Your task to perform on an android device: install app "Truecaller" Image 0: 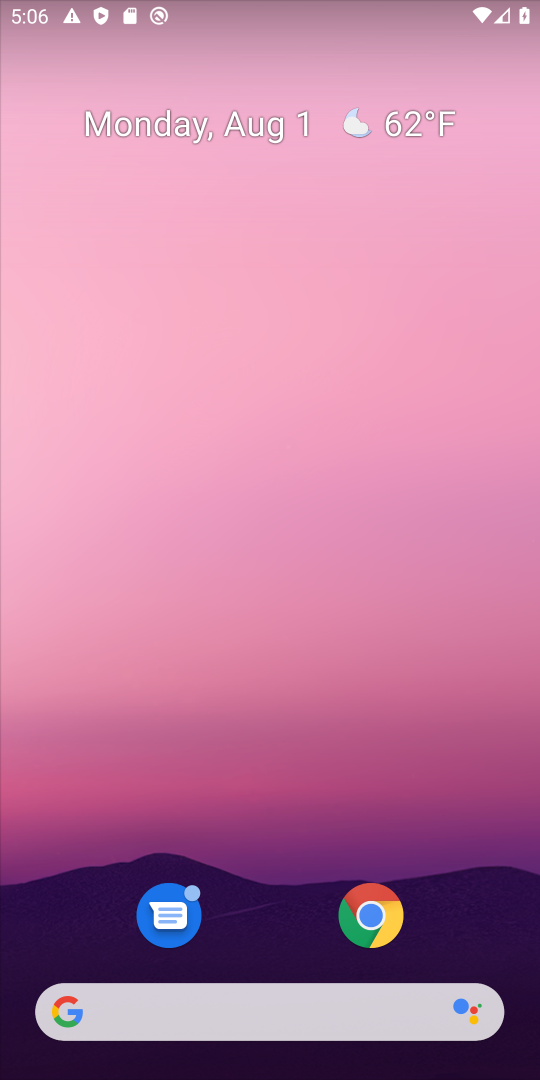
Step 0: drag from (261, 829) to (400, 32)
Your task to perform on an android device: install app "Truecaller" Image 1: 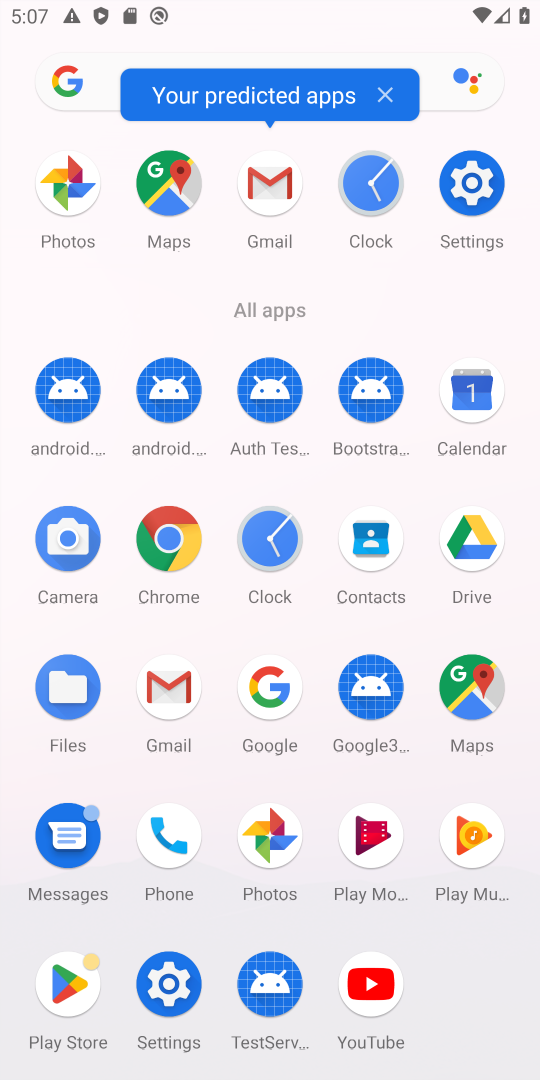
Step 1: click (59, 974)
Your task to perform on an android device: install app "Truecaller" Image 2: 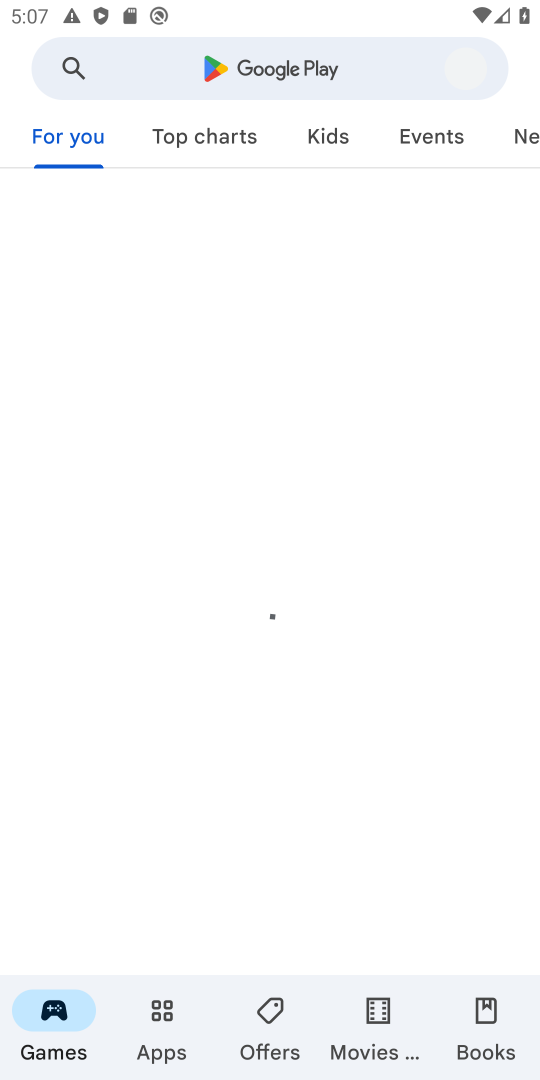
Step 2: click (309, 70)
Your task to perform on an android device: install app "Truecaller" Image 3: 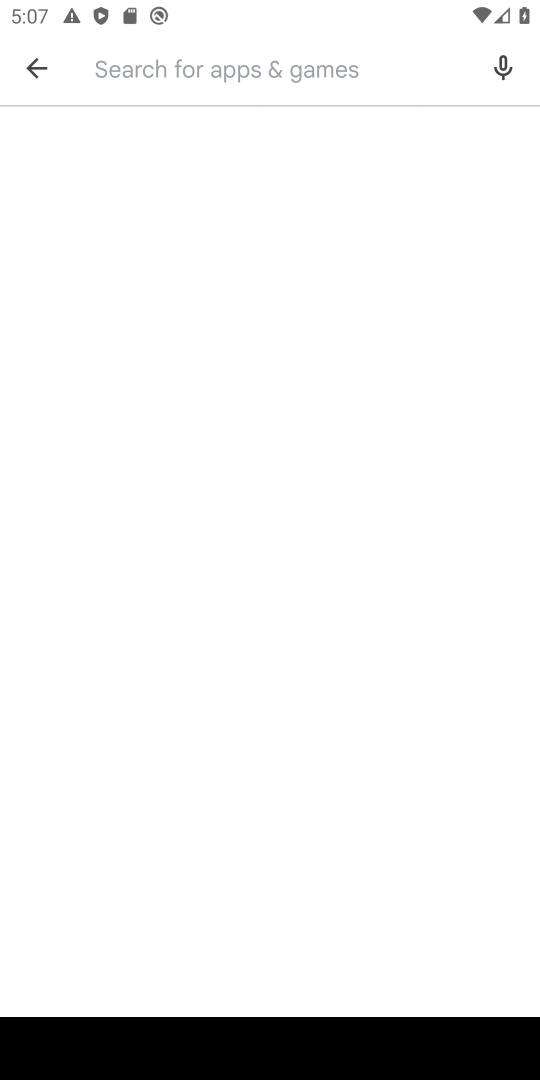
Step 3: type "truecaller"
Your task to perform on an android device: install app "Truecaller" Image 4: 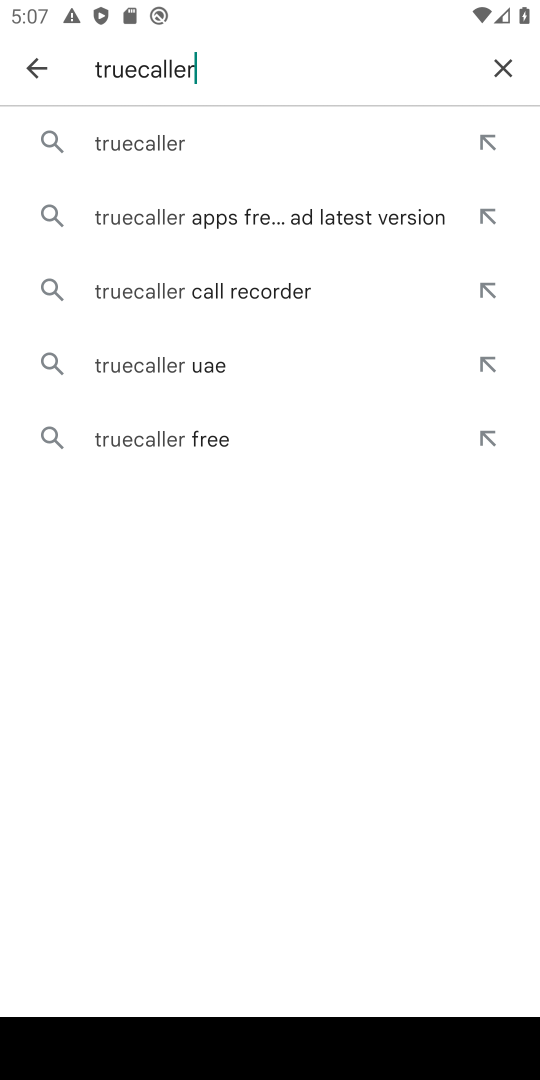
Step 4: click (123, 140)
Your task to perform on an android device: install app "Truecaller" Image 5: 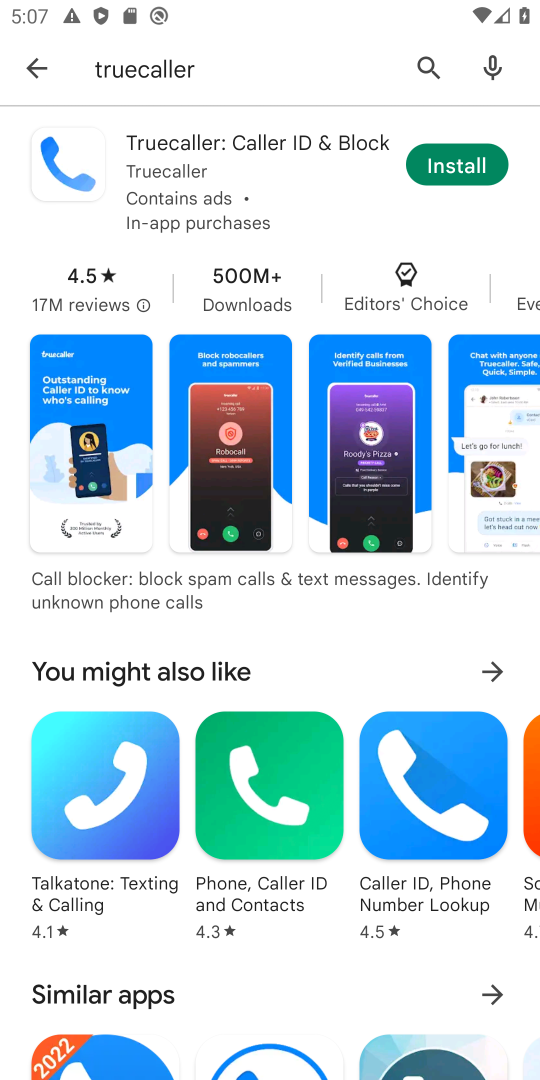
Step 5: click (459, 156)
Your task to perform on an android device: install app "Truecaller" Image 6: 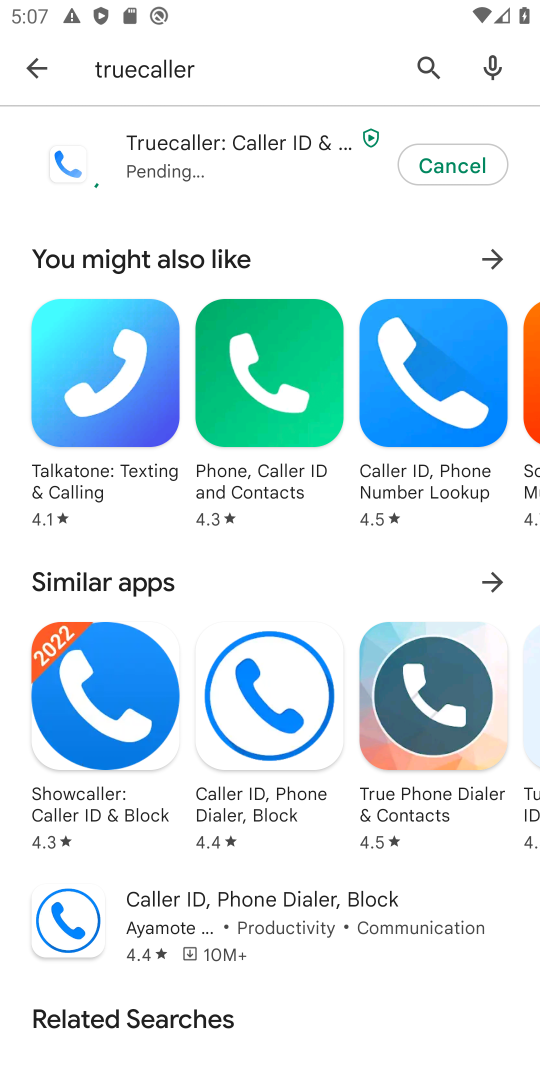
Step 6: click (48, 63)
Your task to perform on an android device: install app "Truecaller" Image 7: 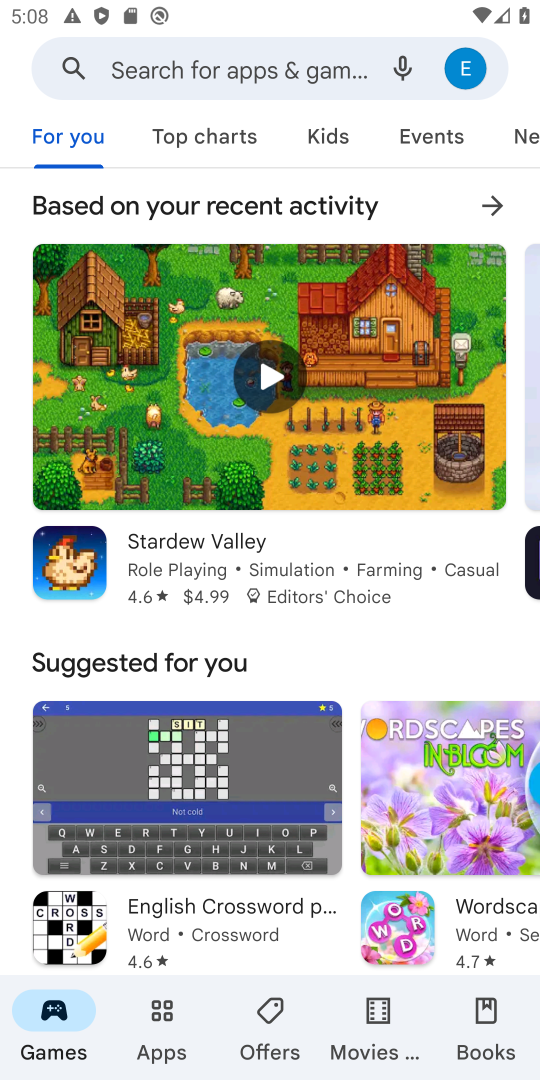
Step 7: click (269, 76)
Your task to perform on an android device: install app "Truecaller" Image 8: 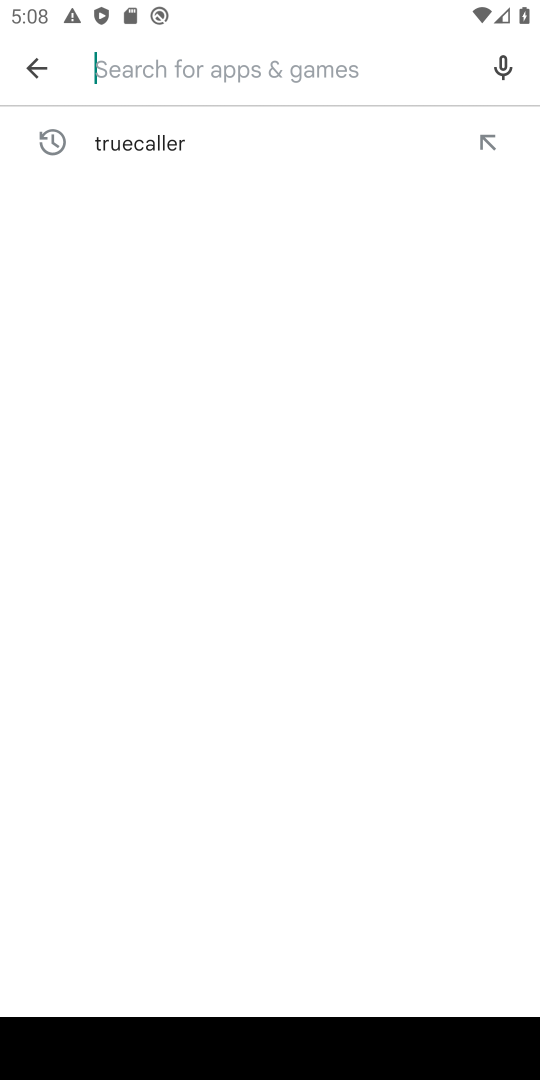
Step 8: click (180, 143)
Your task to perform on an android device: install app "Truecaller" Image 9: 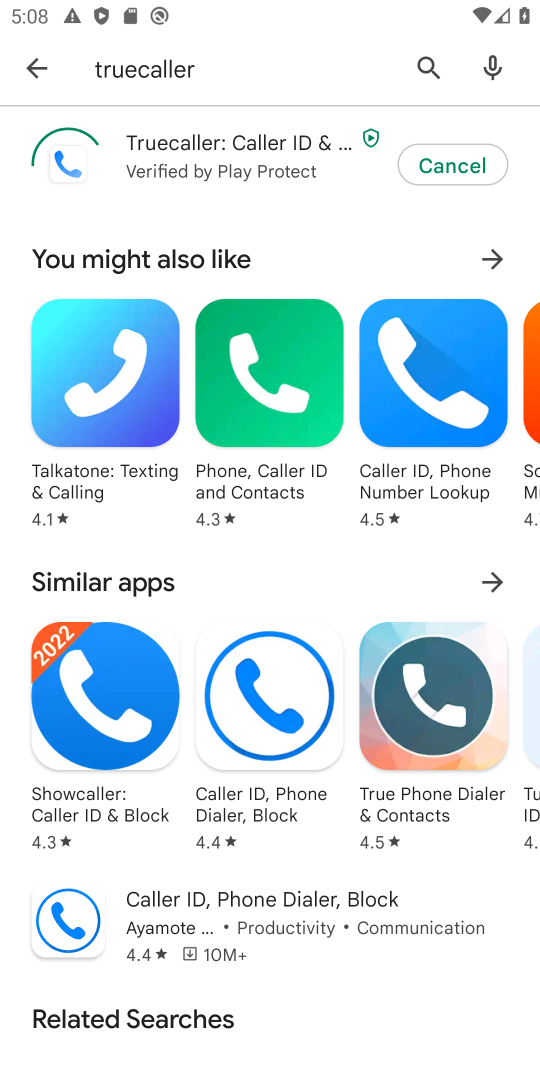
Step 9: click (204, 158)
Your task to perform on an android device: install app "Truecaller" Image 10: 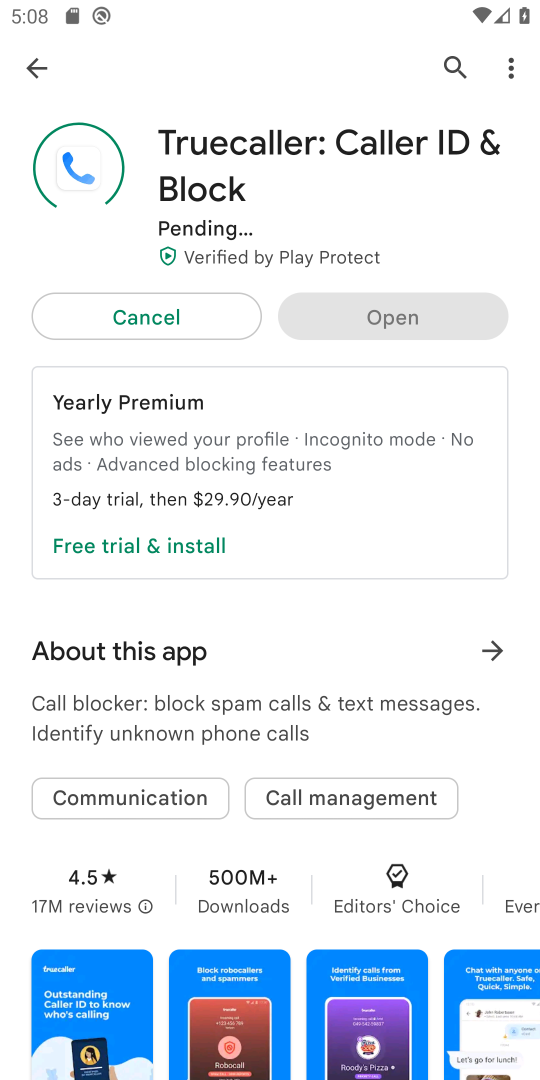
Step 10: click (18, 58)
Your task to perform on an android device: install app "Truecaller" Image 11: 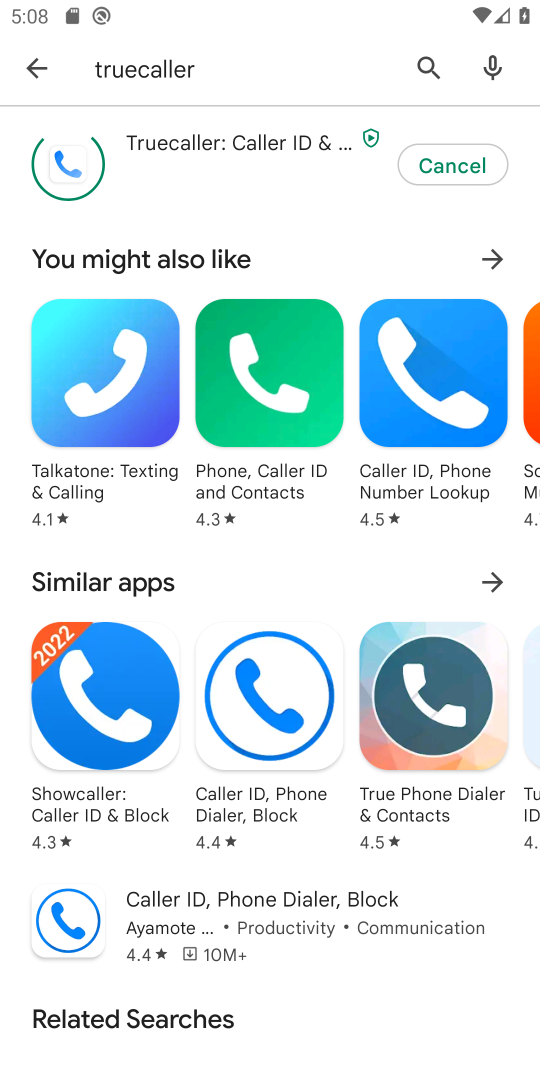
Step 11: task complete